Your task to perform on an android device: stop showing notifications on the lock screen Image 0: 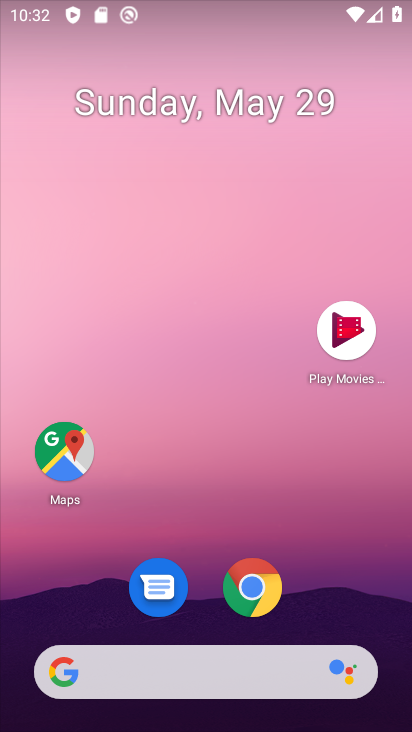
Step 0: drag from (322, 594) to (128, 22)
Your task to perform on an android device: stop showing notifications on the lock screen Image 1: 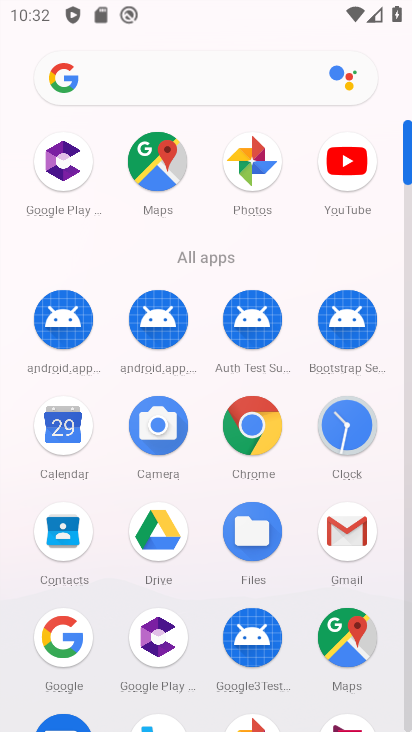
Step 1: click (401, 696)
Your task to perform on an android device: stop showing notifications on the lock screen Image 2: 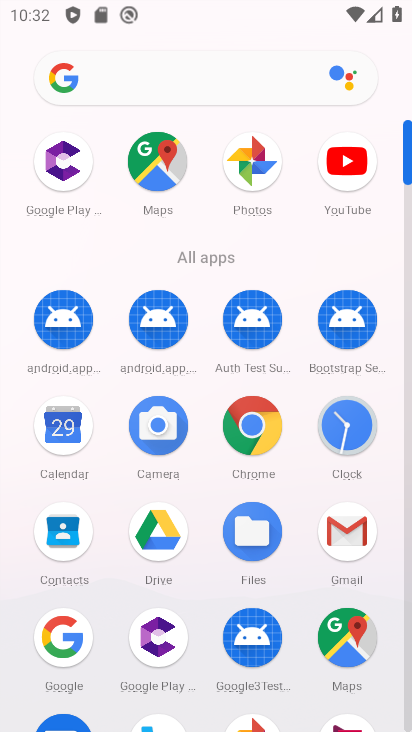
Step 2: click (410, 697)
Your task to perform on an android device: stop showing notifications on the lock screen Image 3: 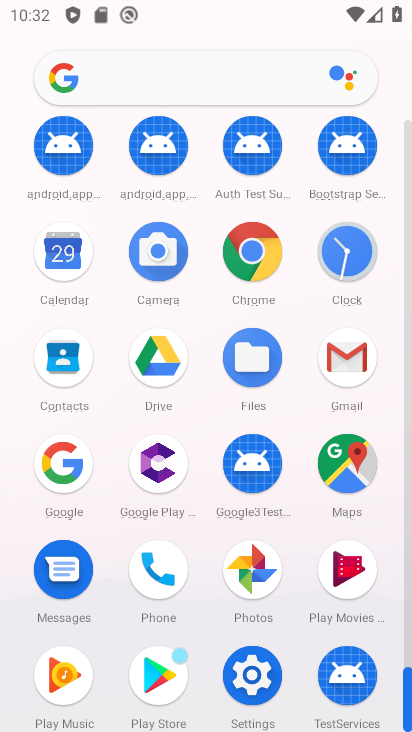
Step 3: click (410, 697)
Your task to perform on an android device: stop showing notifications on the lock screen Image 4: 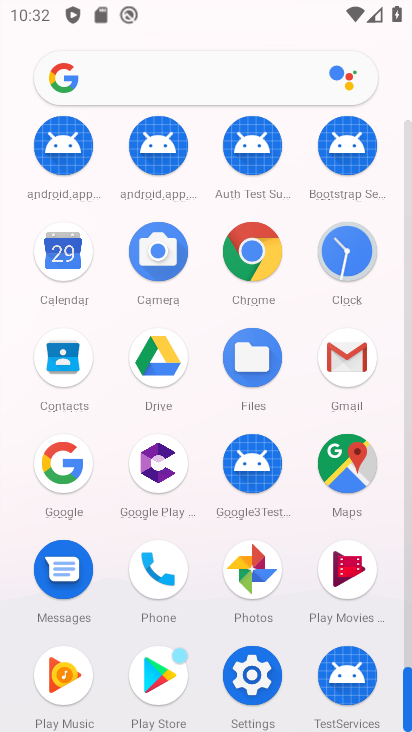
Step 4: click (239, 675)
Your task to perform on an android device: stop showing notifications on the lock screen Image 5: 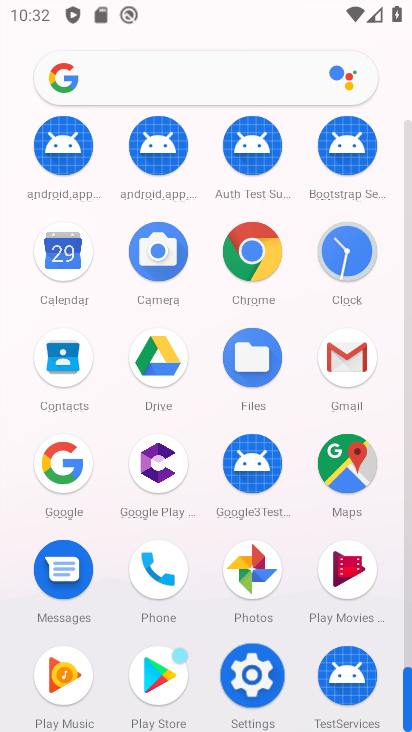
Step 5: click (239, 675)
Your task to perform on an android device: stop showing notifications on the lock screen Image 6: 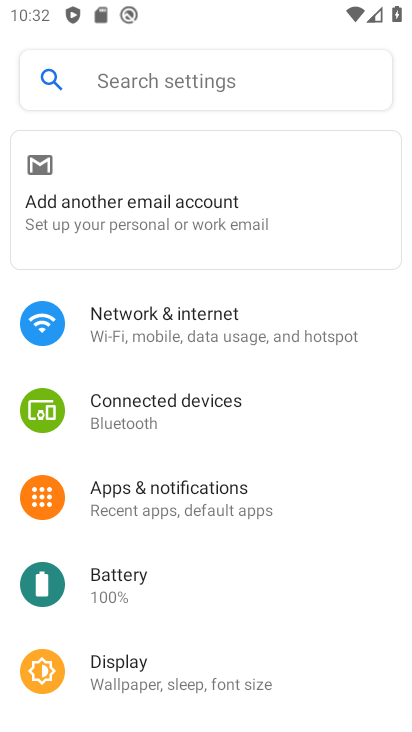
Step 6: click (262, 503)
Your task to perform on an android device: stop showing notifications on the lock screen Image 7: 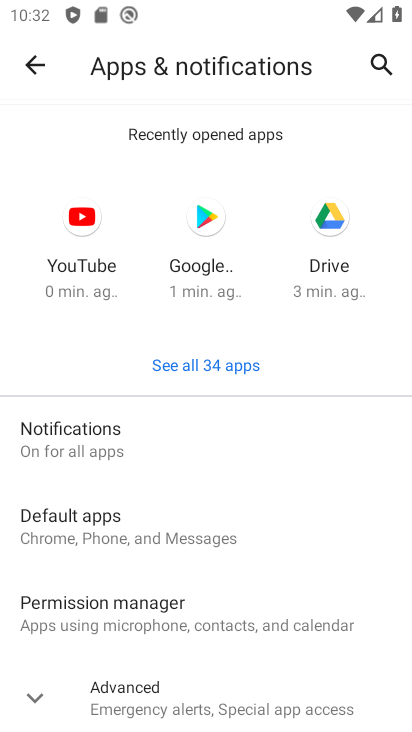
Step 7: click (206, 451)
Your task to perform on an android device: stop showing notifications on the lock screen Image 8: 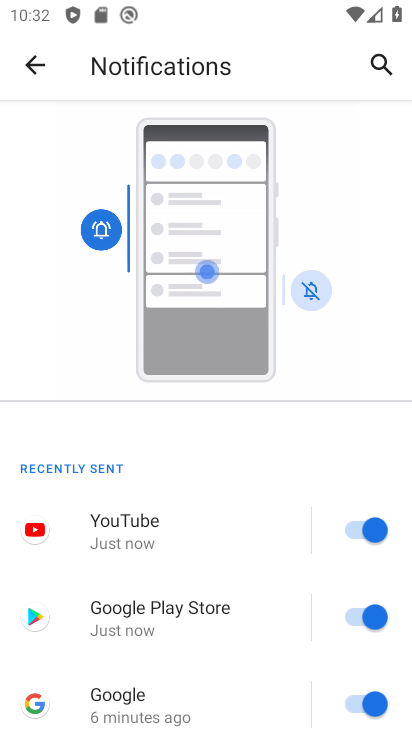
Step 8: drag from (256, 695) to (222, 325)
Your task to perform on an android device: stop showing notifications on the lock screen Image 9: 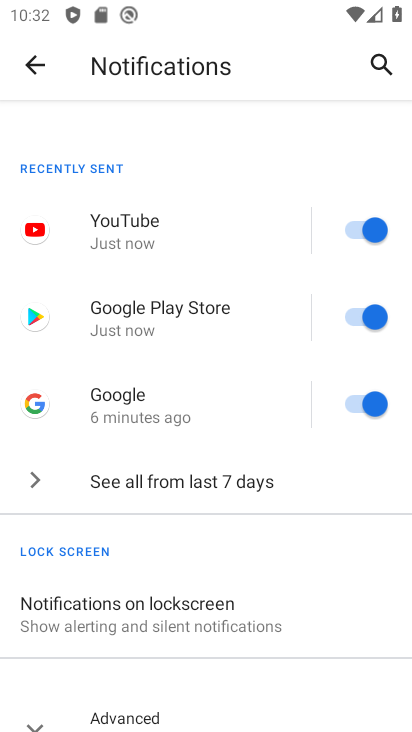
Step 9: drag from (257, 577) to (237, 291)
Your task to perform on an android device: stop showing notifications on the lock screen Image 10: 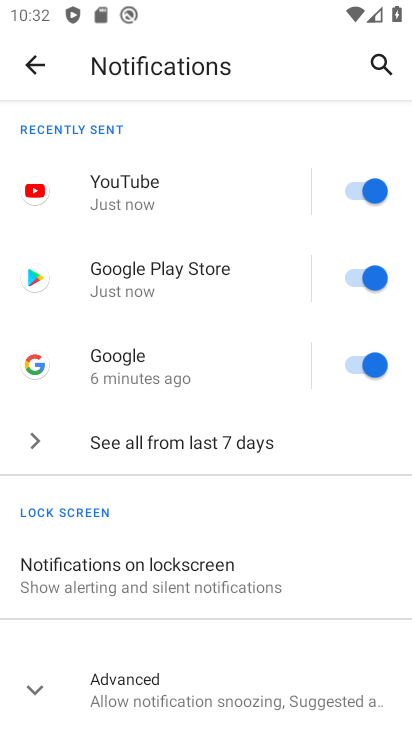
Step 10: click (253, 585)
Your task to perform on an android device: stop showing notifications on the lock screen Image 11: 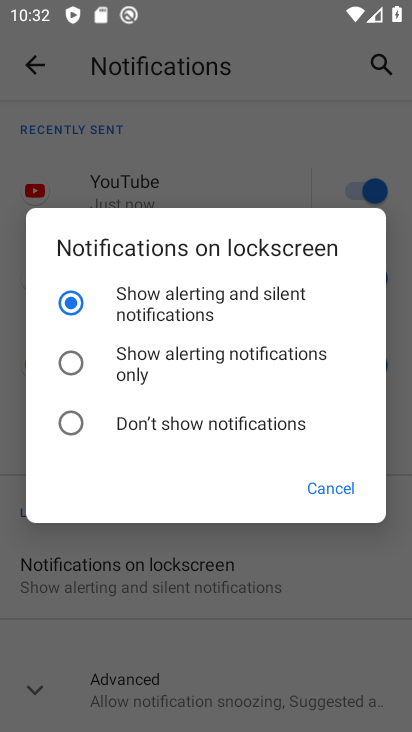
Step 11: click (179, 407)
Your task to perform on an android device: stop showing notifications on the lock screen Image 12: 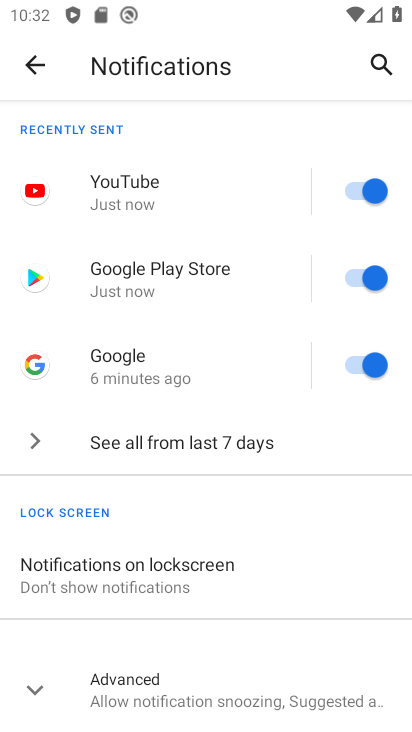
Step 12: task complete